Your task to perform on an android device: turn notification dots on Image 0: 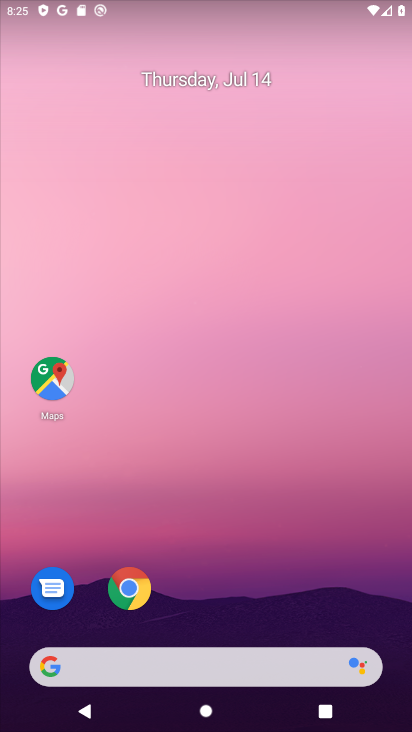
Step 0: drag from (253, 595) to (220, 116)
Your task to perform on an android device: turn notification dots on Image 1: 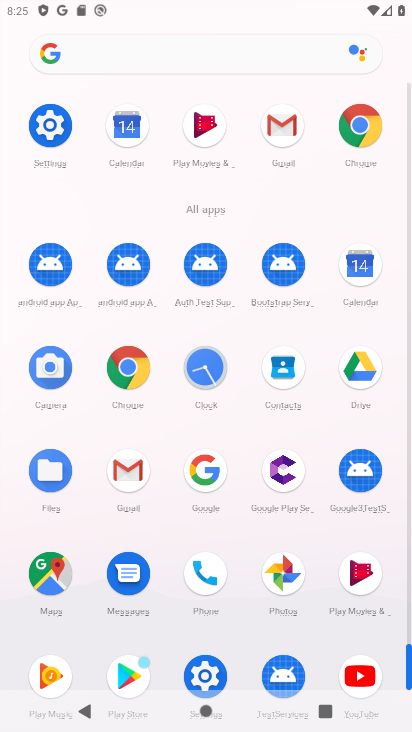
Step 1: click (50, 120)
Your task to perform on an android device: turn notification dots on Image 2: 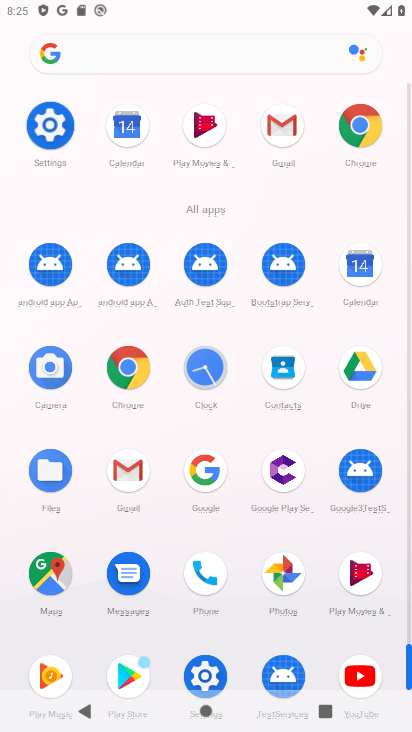
Step 2: click (50, 120)
Your task to perform on an android device: turn notification dots on Image 3: 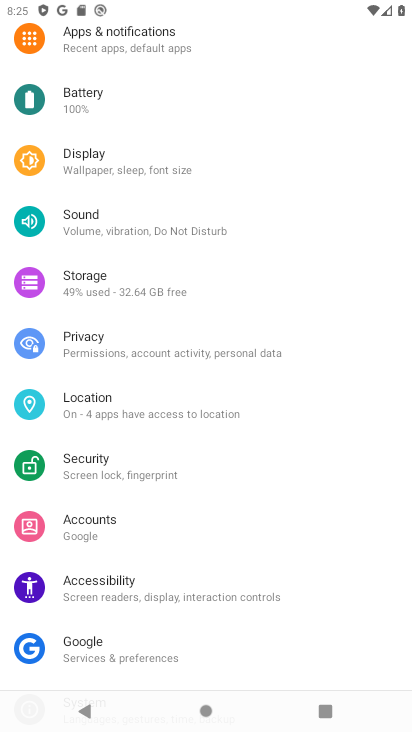
Step 3: click (116, 28)
Your task to perform on an android device: turn notification dots on Image 4: 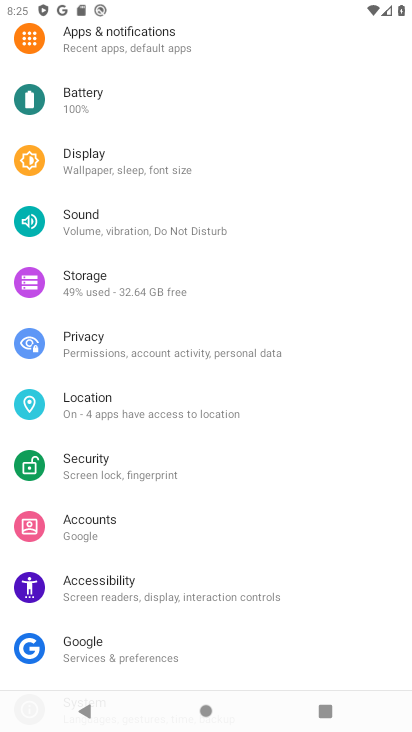
Step 4: click (120, 36)
Your task to perform on an android device: turn notification dots on Image 5: 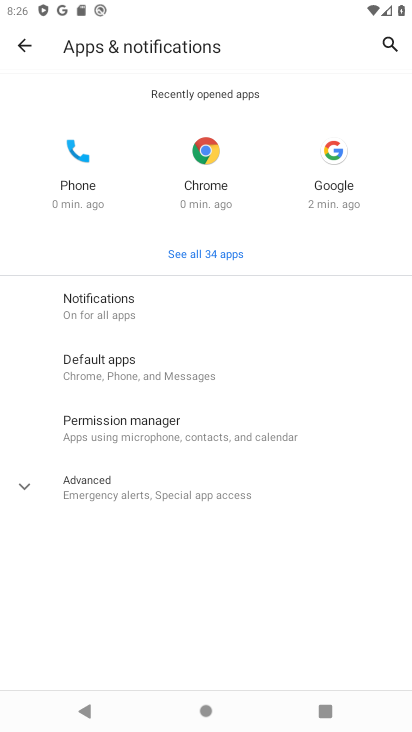
Step 5: click (89, 304)
Your task to perform on an android device: turn notification dots on Image 6: 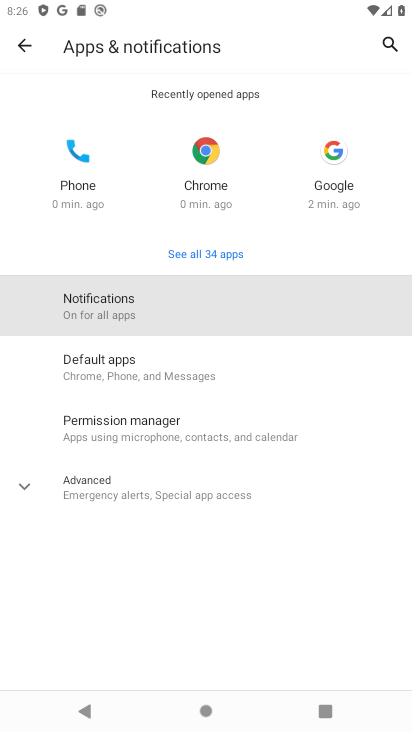
Step 6: click (91, 301)
Your task to perform on an android device: turn notification dots on Image 7: 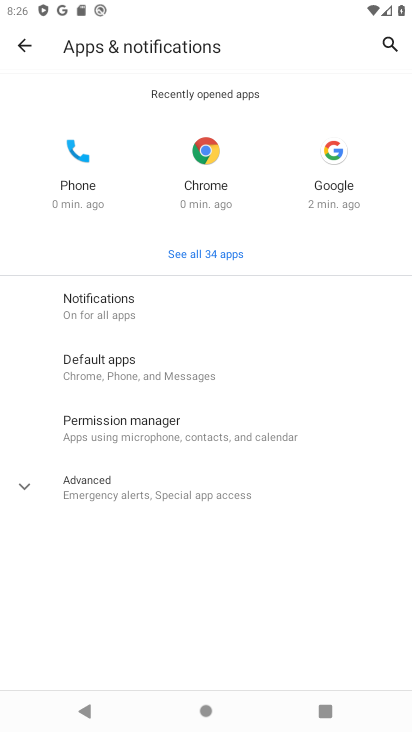
Step 7: click (96, 297)
Your task to perform on an android device: turn notification dots on Image 8: 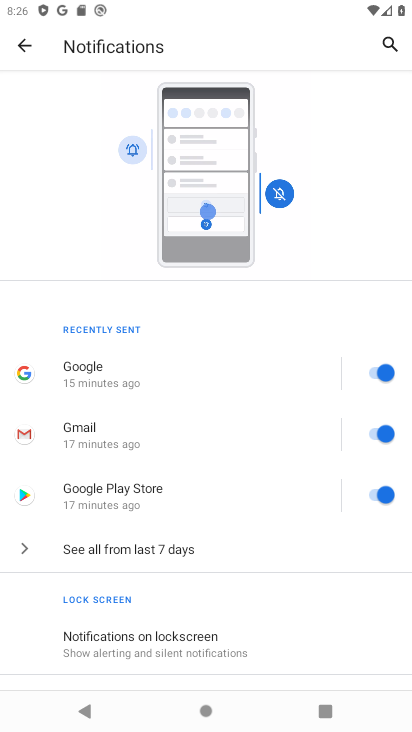
Step 8: drag from (187, 573) to (190, 265)
Your task to perform on an android device: turn notification dots on Image 9: 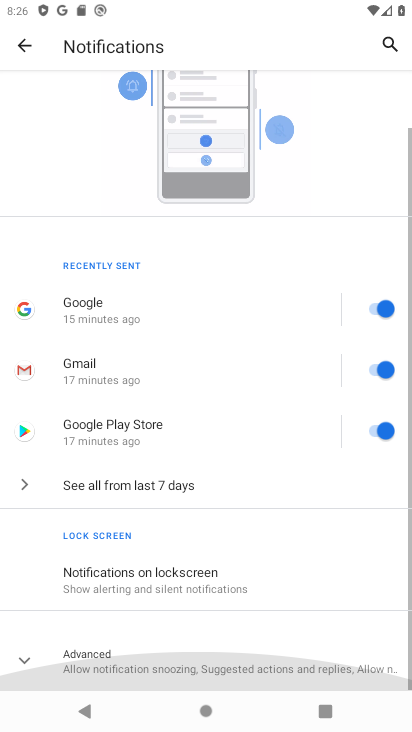
Step 9: drag from (221, 473) to (218, 296)
Your task to perform on an android device: turn notification dots on Image 10: 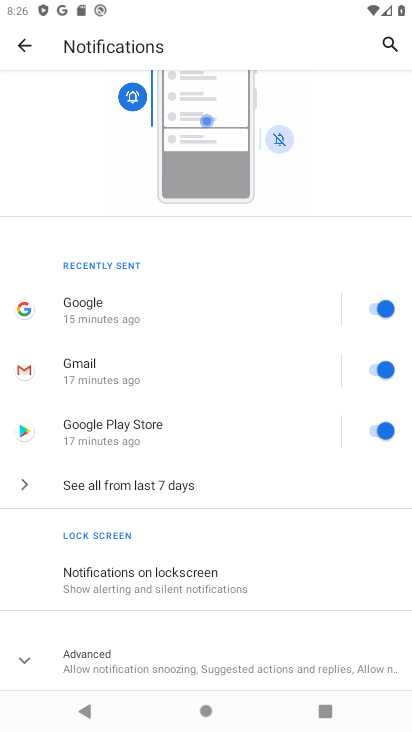
Step 10: click (103, 659)
Your task to perform on an android device: turn notification dots on Image 11: 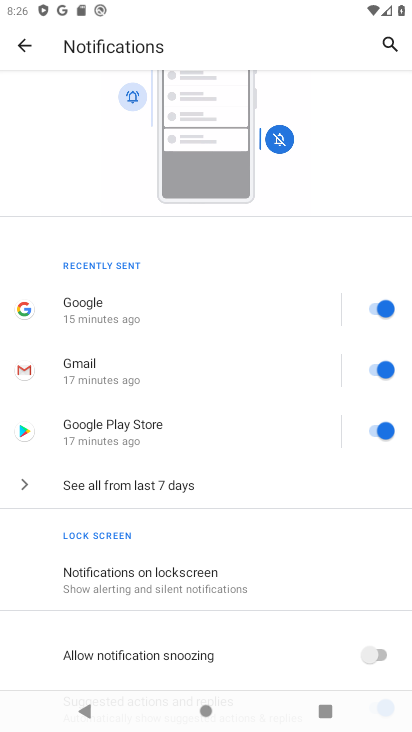
Step 11: task complete